Your task to perform on an android device: check storage Image 0: 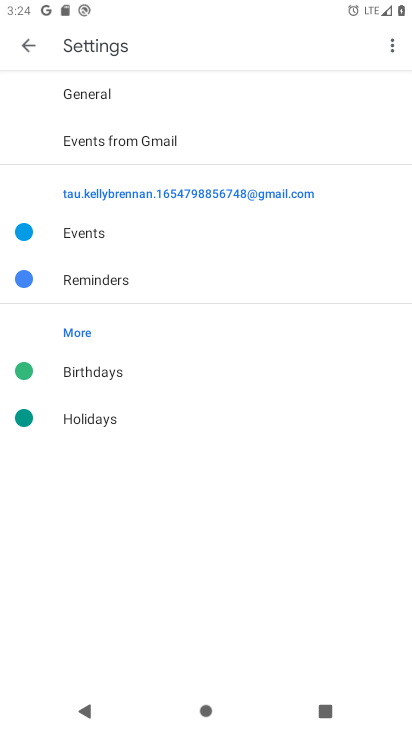
Step 0: press home button
Your task to perform on an android device: check storage Image 1: 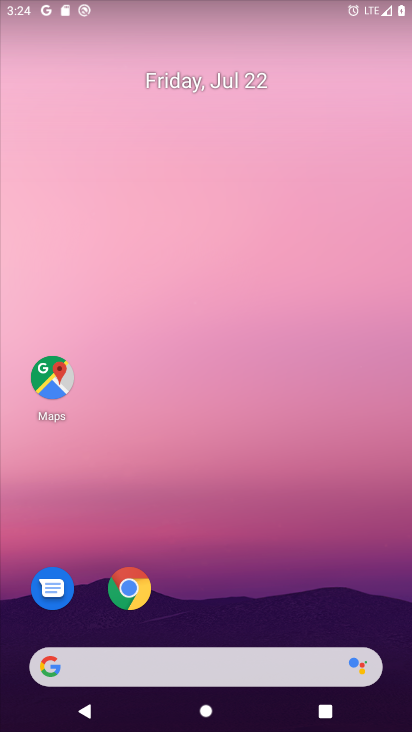
Step 1: drag from (164, 334) to (161, 100)
Your task to perform on an android device: check storage Image 2: 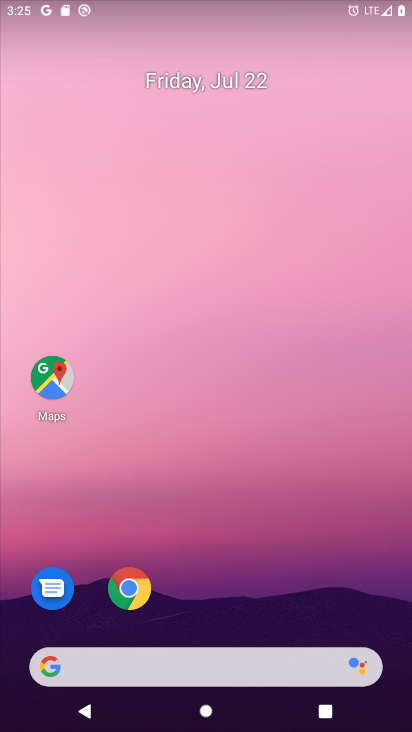
Step 2: drag from (282, 597) to (275, 81)
Your task to perform on an android device: check storage Image 3: 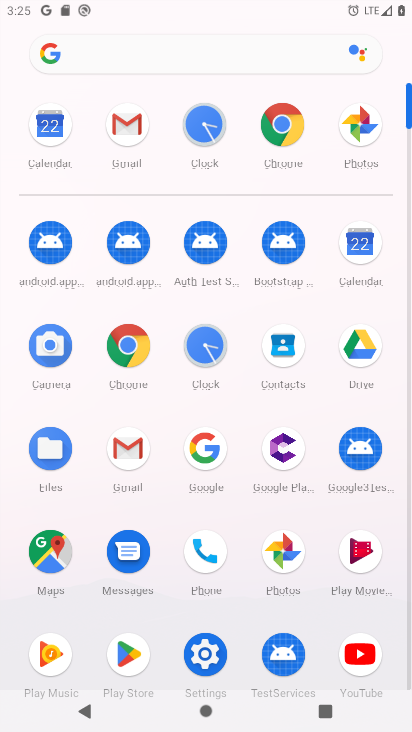
Step 3: click (209, 643)
Your task to perform on an android device: check storage Image 4: 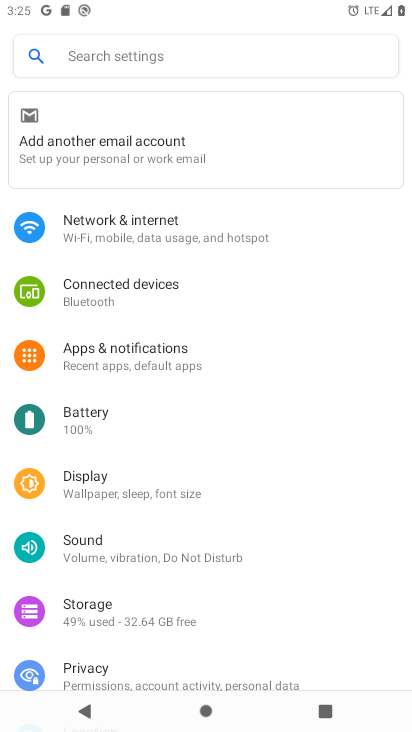
Step 4: click (115, 614)
Your task to perform on an android device: check storage Image 5: 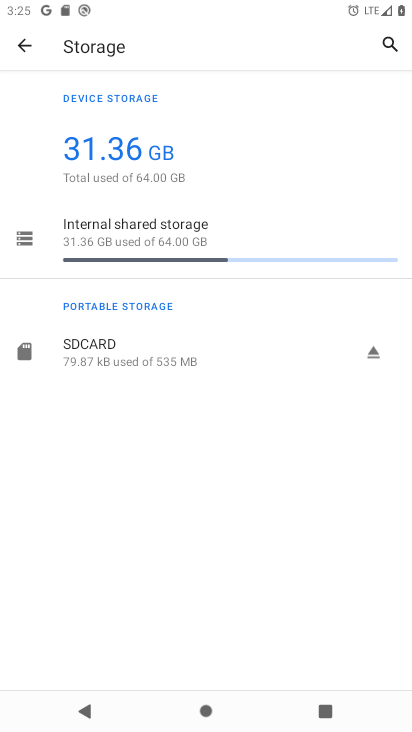
Step 5: task complete